Your task to perform on an android device: Go to Google maps Image 0: 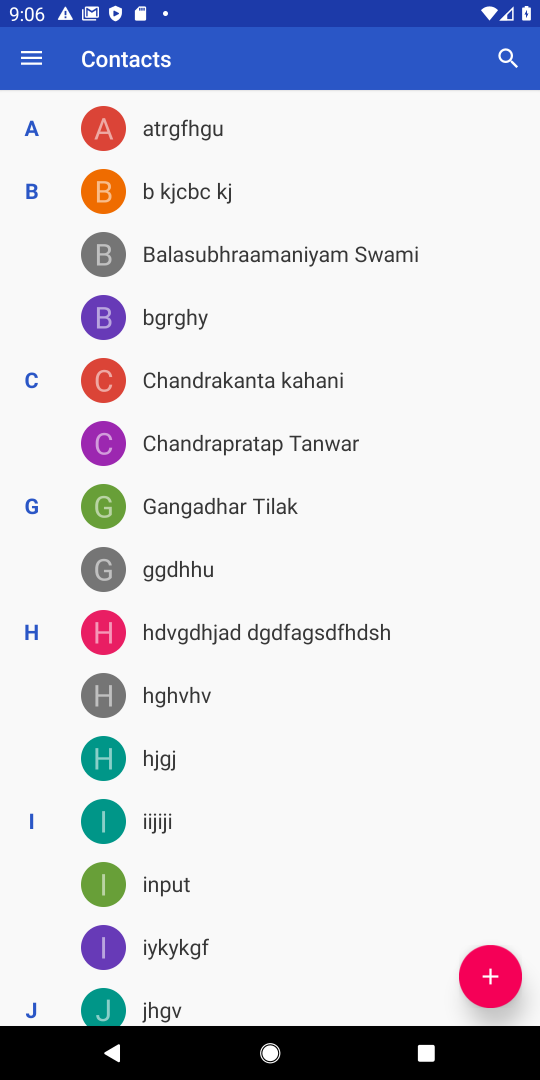
Step 0: press back button
Your task to perform on an android device: Go to Google maps Image 1: 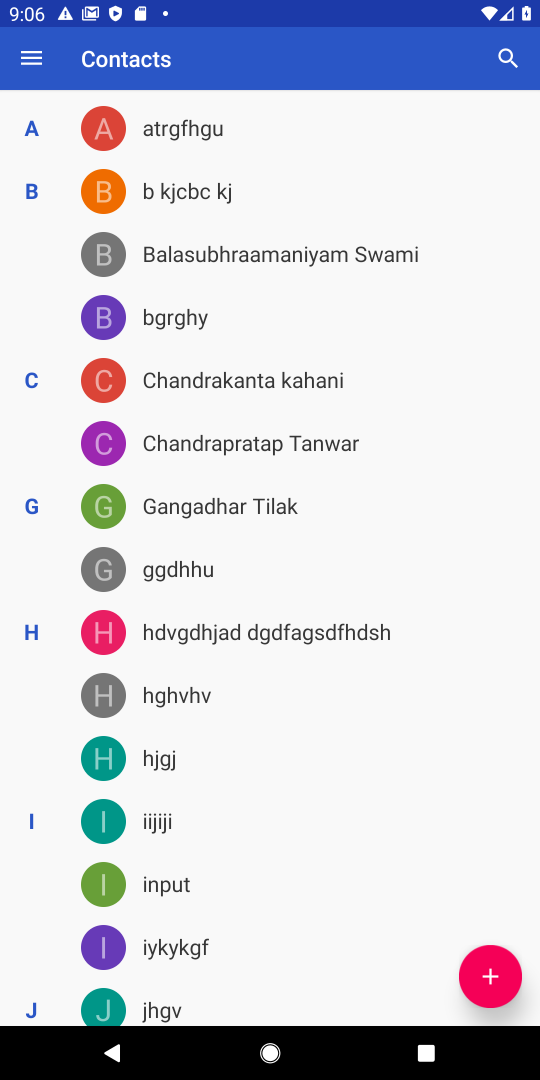
Step 1: press home button
Your task to perform on an android device: Go to Google maps Image 2: 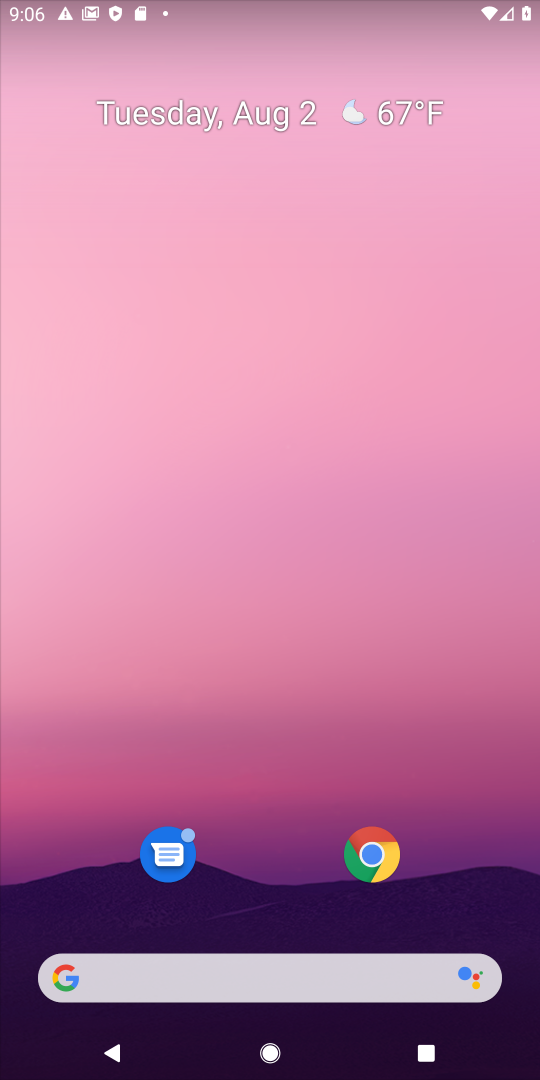
Step 2: drag from (271, 902) to (250, 50)
Your task to perform on an android device: Go to Google maps Image 3: 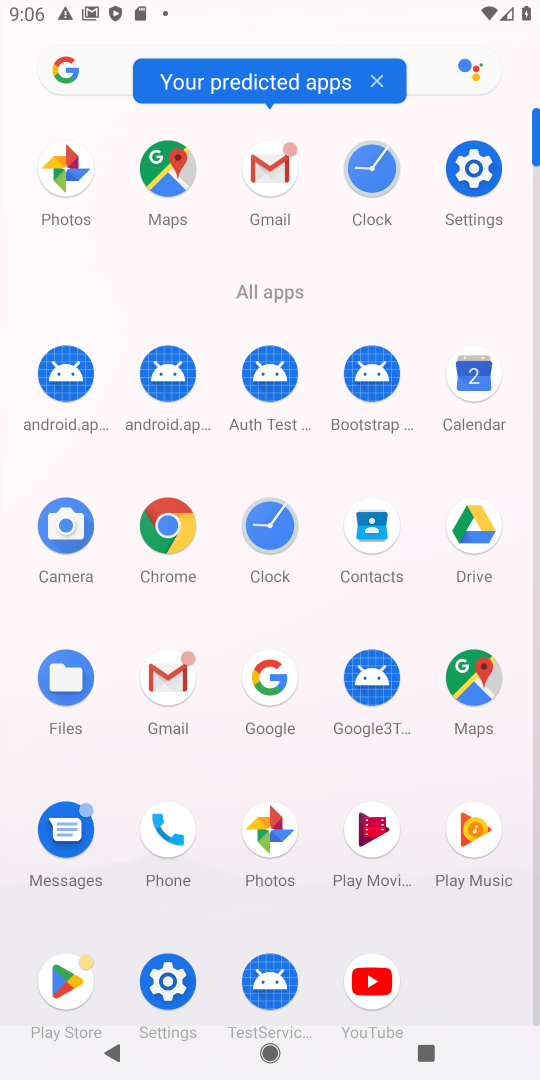
Step 3: click (474, 680)
Your task to perform on an android device: Go to Google maps Image 4: 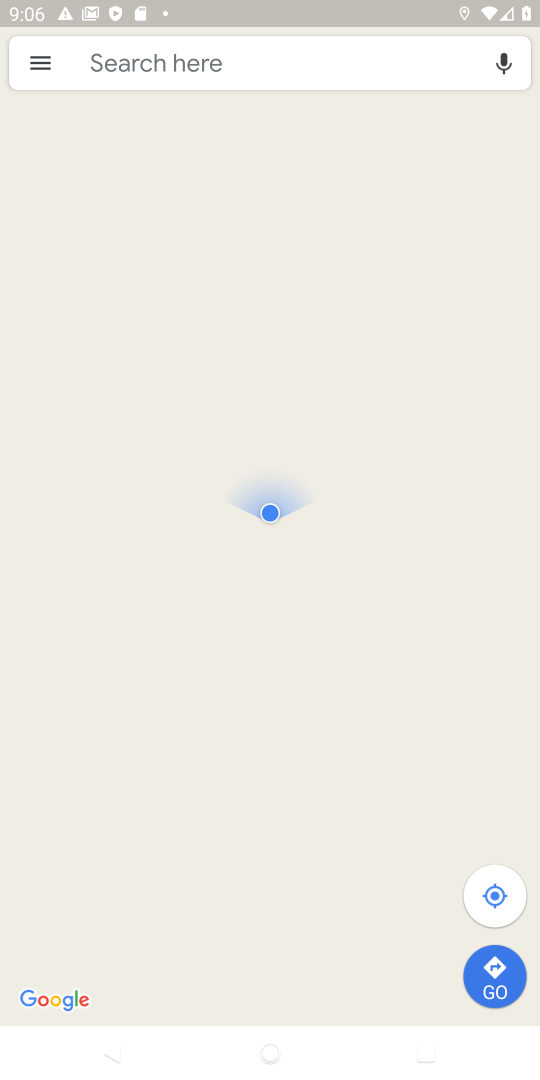
Step 4: task complete